Your task to perform on an android device: Open the calendar and show me this week's events? Image 0: 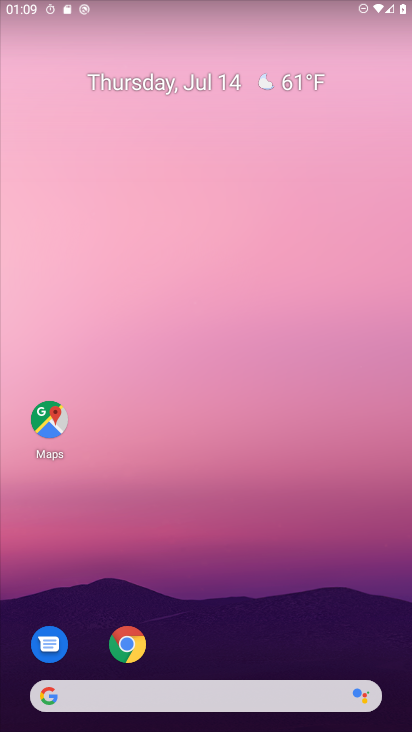
Step 0: drag from (290, 541) to (281, 125)
Your task to perform on an android device: Open the calendar and show me this week's events? Image 1: 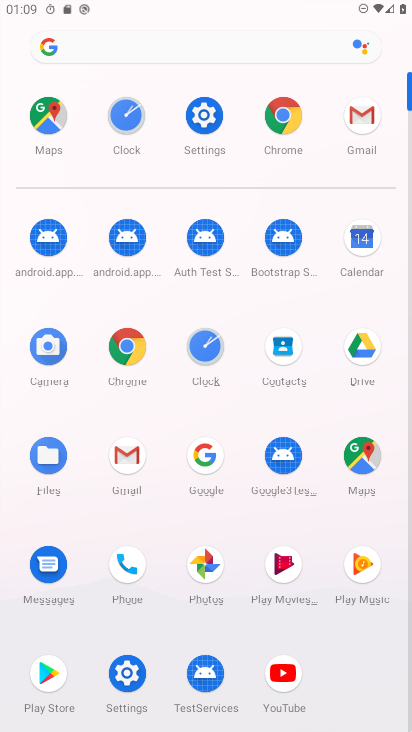
Step 1: click (365, 240)
Your task to perform on an android device: Open the calendar and show me this week's events? Image 2: 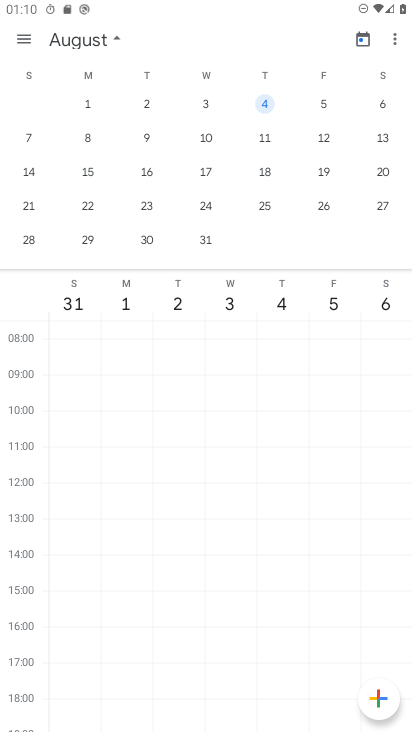
Step 2: drag from (45, 152) to (388, 186)
Your task to perform on an android device: Open the calendar and show me this week's events? Image 3: 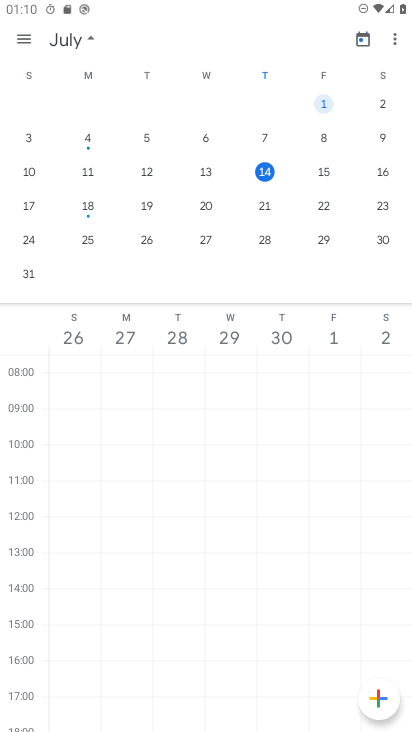
Step 3: click (260, 173)
Your task to perform on an android device: Open the calendar and show me this week's events? Image 4: 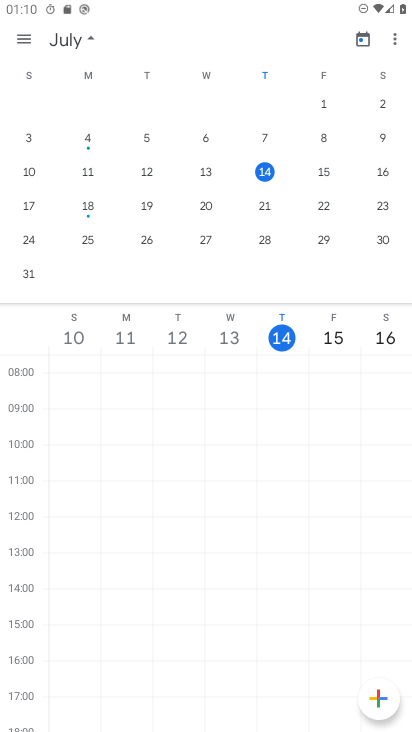
Step 4: task complete